Your task to perform on an android device: change notification settings in the gmail app Image 0: 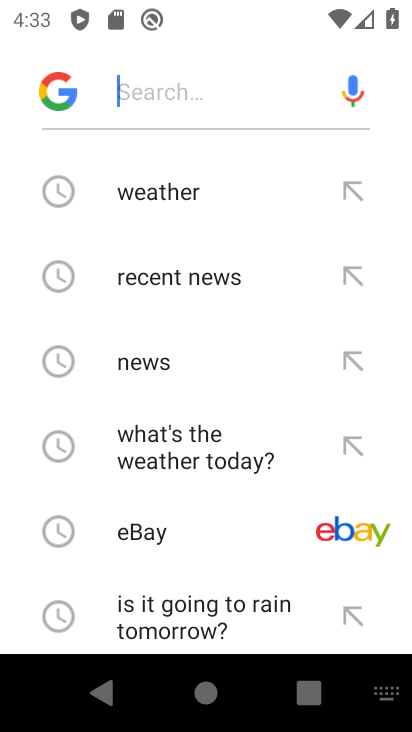
Step 0: press back button
Your task to perform on an android device: change notification settings in the gmail app Image 1: 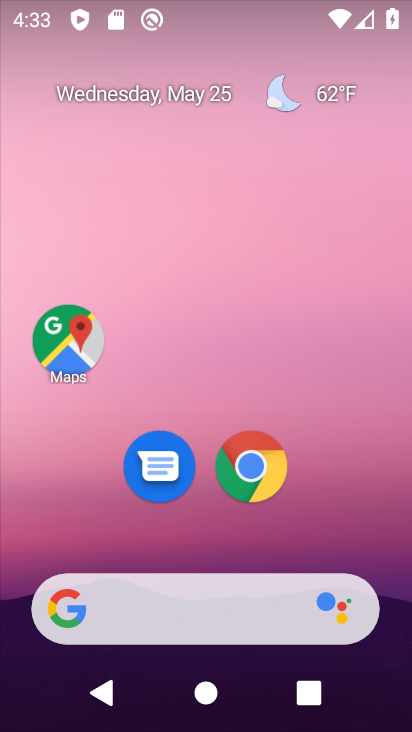
Step 1: drag from (335, 522) to (264, 99)
Your task to perform on an android device: change notification settings in the gmail app Image 2: 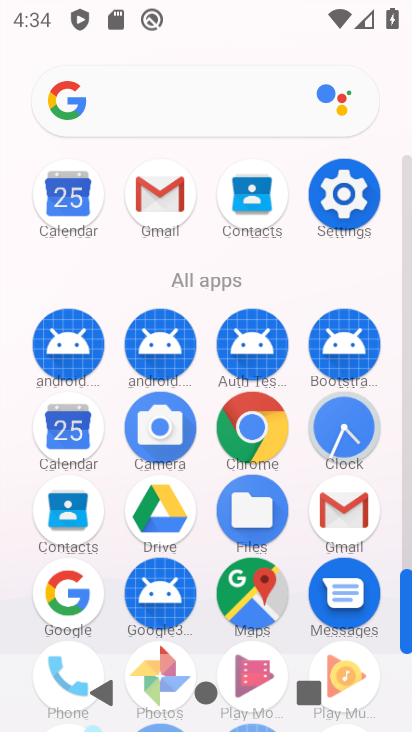
Step 2: click (156, 195)
Your task to perform on an android device: change notification settings in the gmail app Image 3: 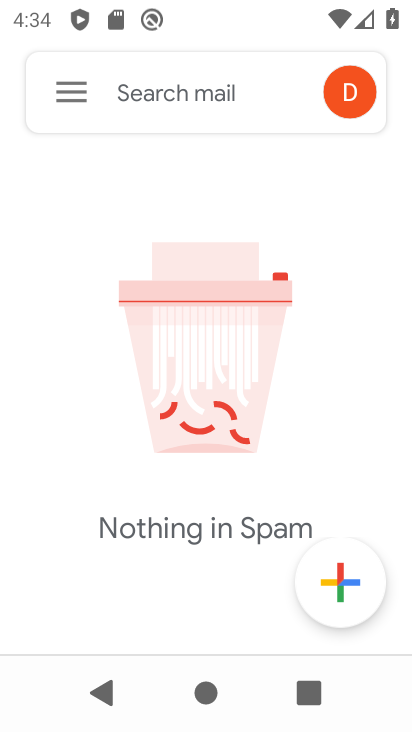
Step 3: click (67, 84)
Your task to perform on an android device: change notification settings in the gmail app Image 4: 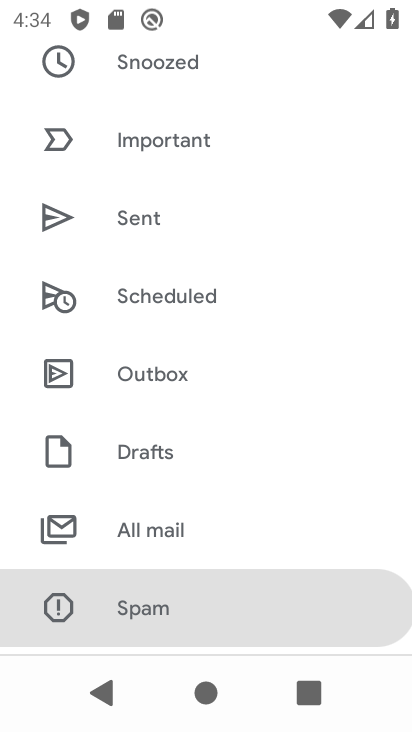
Step 4: drag from (205, 471) to (227, 370)
Your task to perform on an android device: change notification settings in the gmail app Image 5: 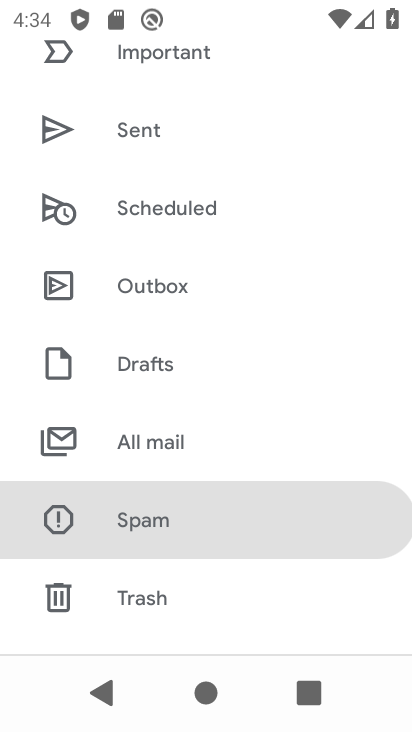
Step 5: drag from (182, 581) to (218, 438)
Your task to perform on an android device: change notification settings in the gmail app Image 6: 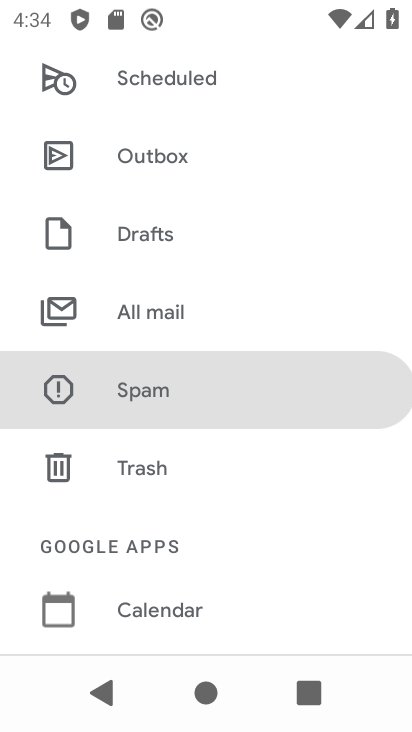
Step 6: drag from (184, 575) to (236, 466)
Your task to perform on an android device: change notification settings in the gmail app Image 7: 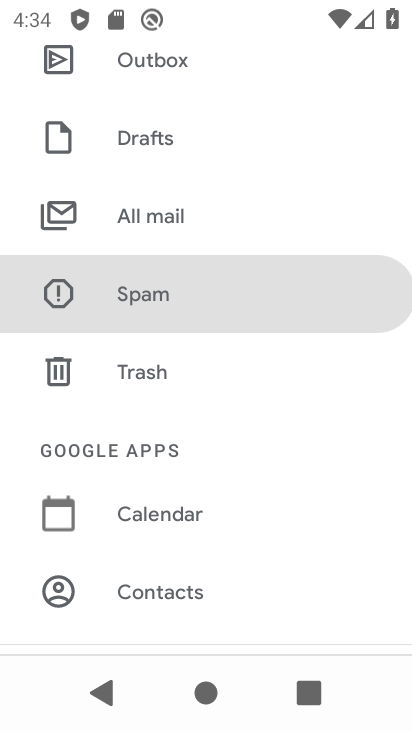
Step 7: drag from (167, 558) to (264, 430)
Your task to perform on an android device: change notification settings in the gmail app Image 8: 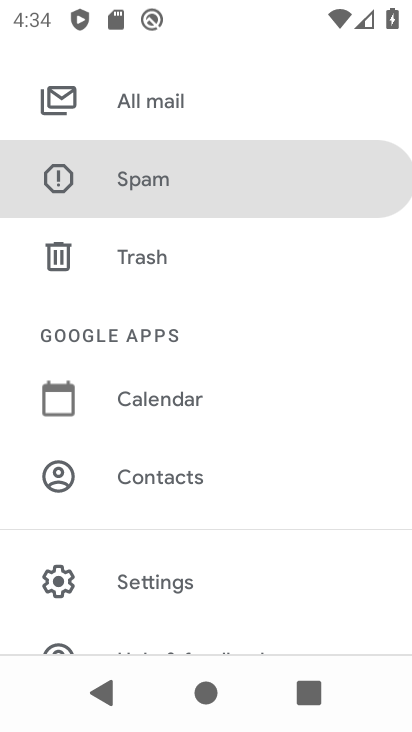
Step 8: click (172, 570)
Your task to perform on an android device: change notification settings in the gmail app Image 9: 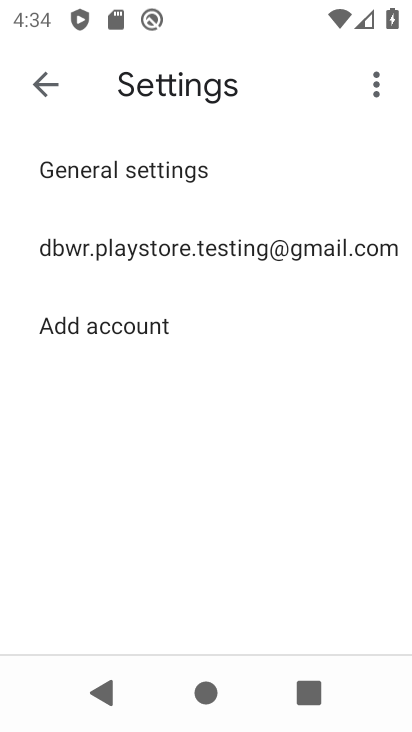
Step 9: click (200, 251)
Your task to perform on an android device: change notification settings in the gmail app Image 10: 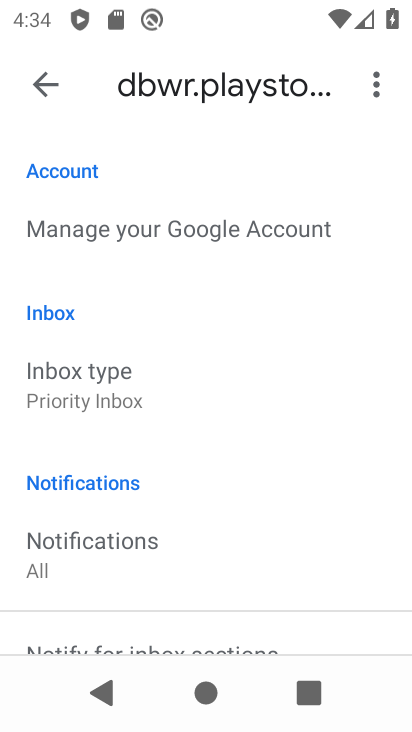
Step 10: drag from (172, 471) to (215, 362)
Your task to perform on an android device: change notification settings in the gmail app Image 11: 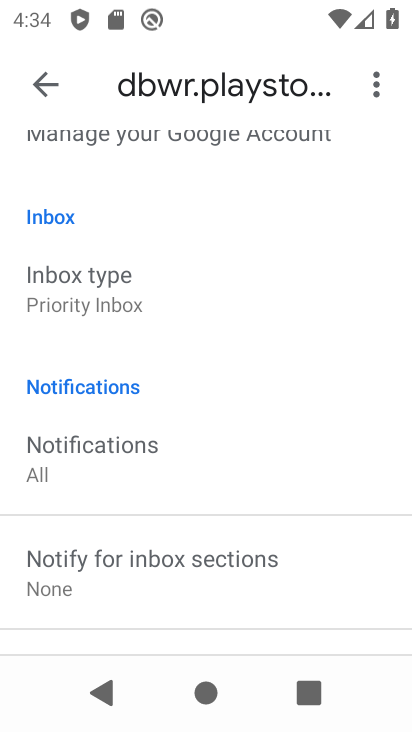
Step 11: drag from (164, 530) to (259, 413)
Your task to perform on an android device: change notification settings in the gmail app Image 12: 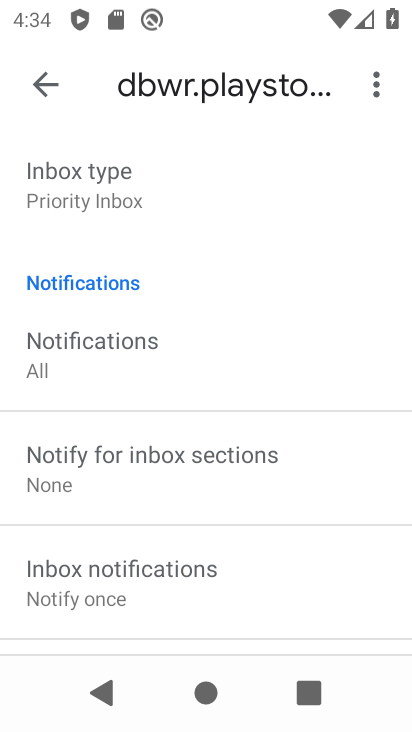
Step 12: drag from (165, 536) to (262, 410)
Your task to perform on an android device: change notification settings in the gmail app Image 13: 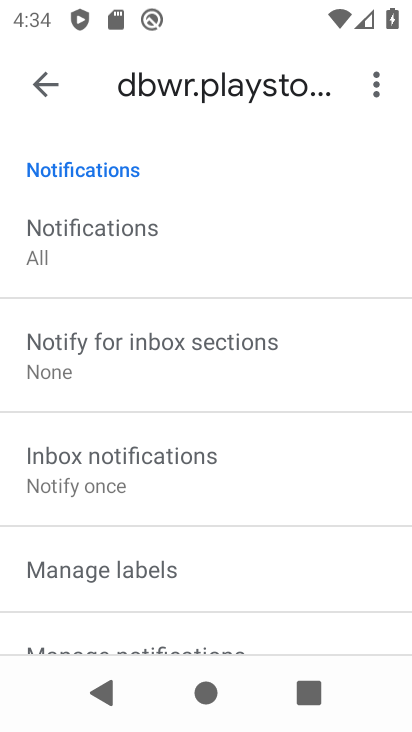
Step 13: drag from (198, 574) to (292, 449)
Your task to perform on an android device: change notification settings in the gmail app Image 14: 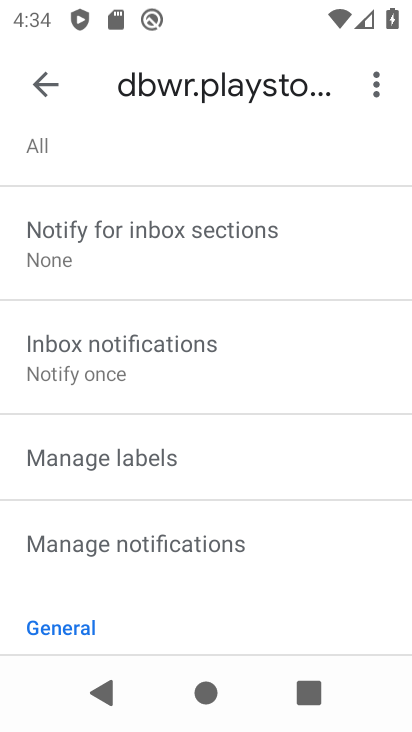
Step 14: click (210, 552)
Your task to perform on an android device: change notification settings in the gmail app Image 15: 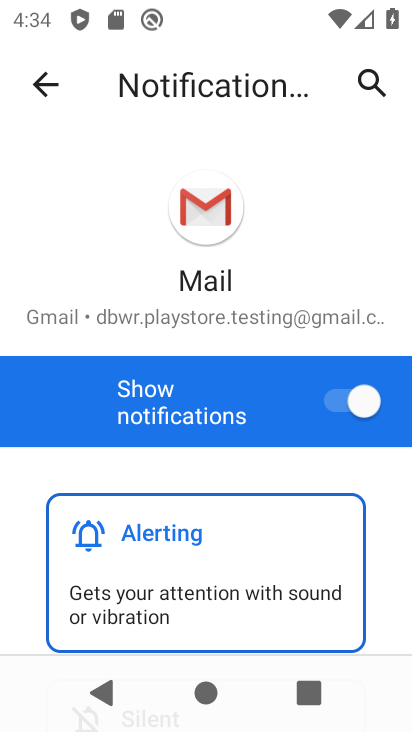
Step 15: click (344, 400)
Your task to perform on an android device: change notification settings in the gmail app Image 16: 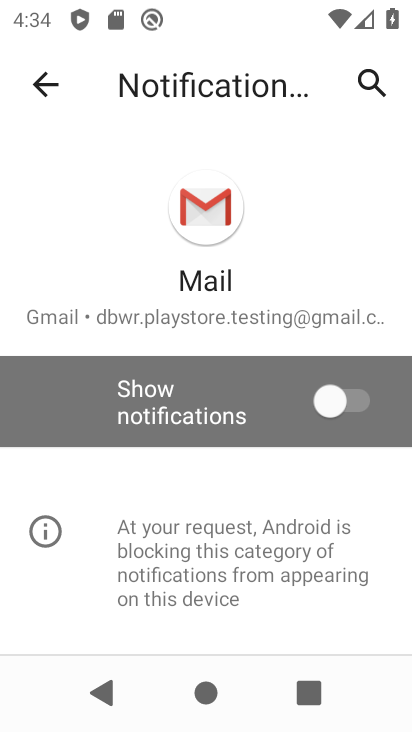
Step 16: task complete